Your task to perform on an android device: Turn off the flashlight Image 0: 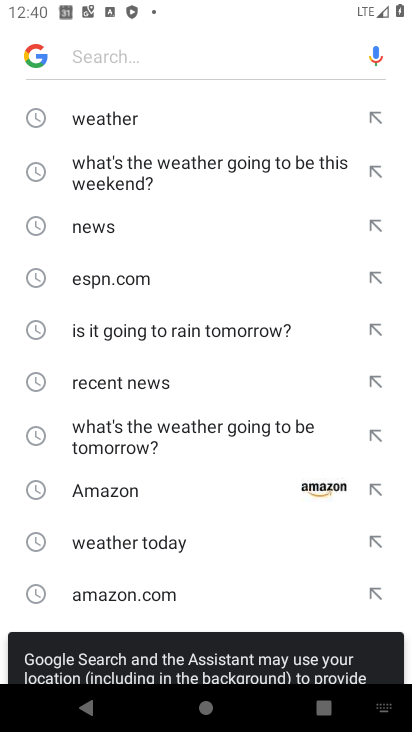
Step 0: press home button
Your task to perform on an android device: Turn off the flashlight Image 1: 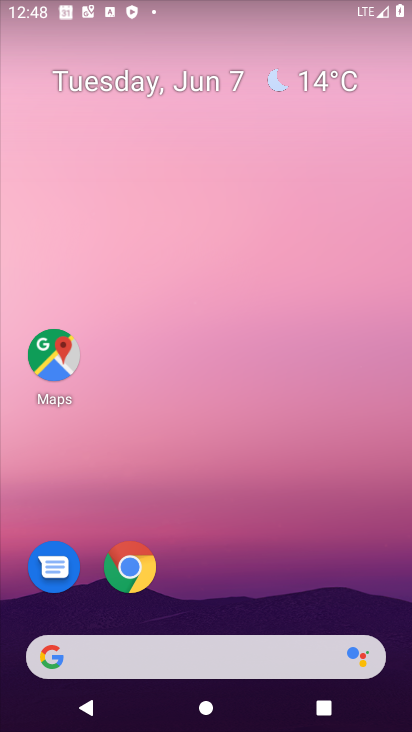
Step 1: task complete